Your task to perform on an android device: allow cookies in the chrome app Image 0: 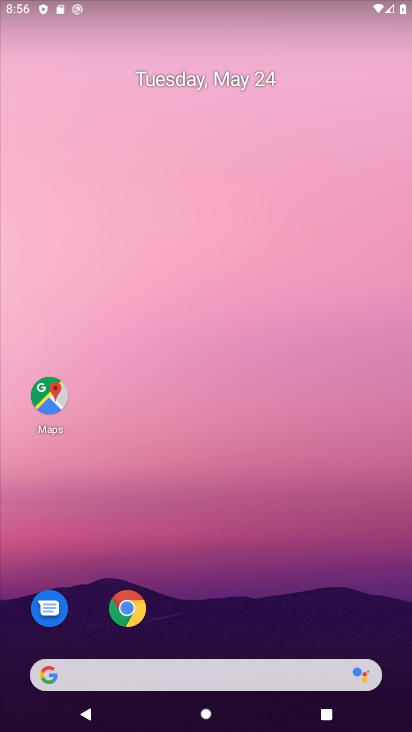
Step 0: click (133, 615)
Your task to perform on an android device: allow cookies in the chrome app Image 1: 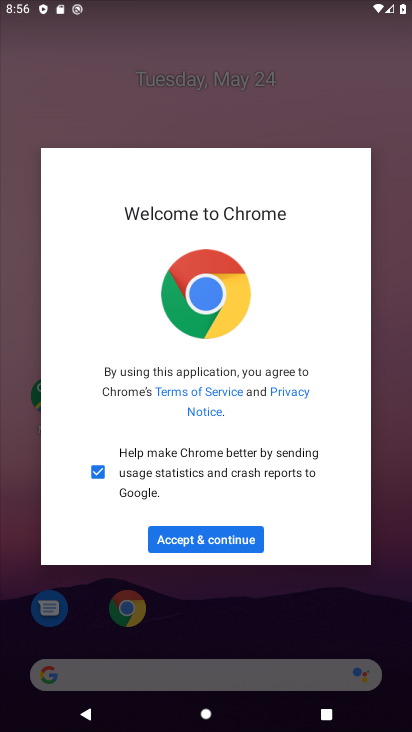
Step 1: click (227, 537)
Your task to perform on an android device: allow cookies in the chrome app Image 2: 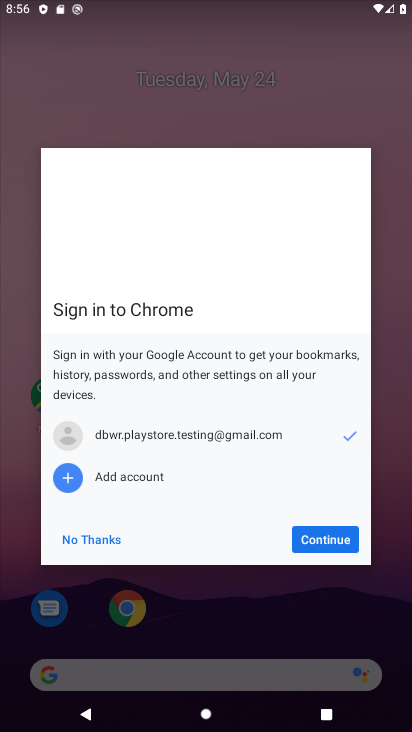
Step 2: click (322, 537)
Your task to perform on an android device: allow cookies in the chrome app Image 3: 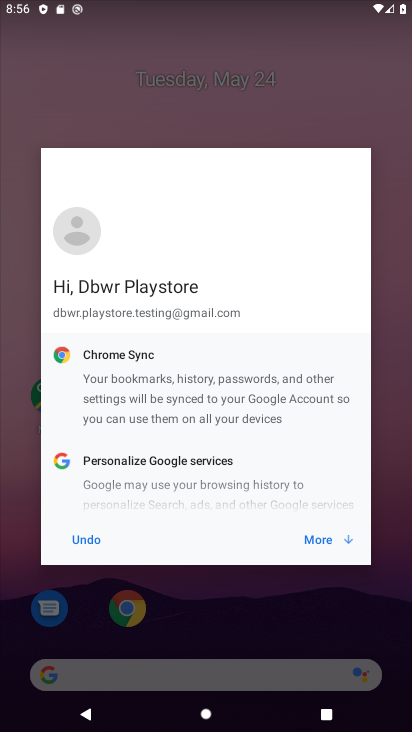
Step 3: click (330, 537)
Your task to perform on an android device: allow cookies in the chrome app Image 4: 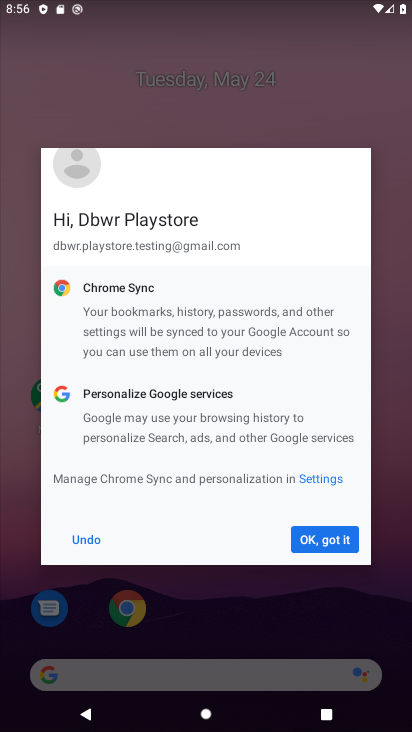
Step 4: click (327, 540)
Your task to perform on an android device: allow cookies in the chrome app Image 5: 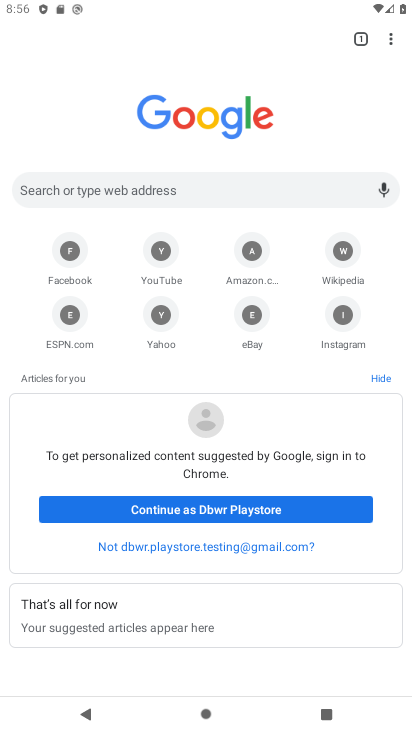
Step 5: click (390, 34)
Your task to perform on an android device: allow cookies in the chrome app Image 6: 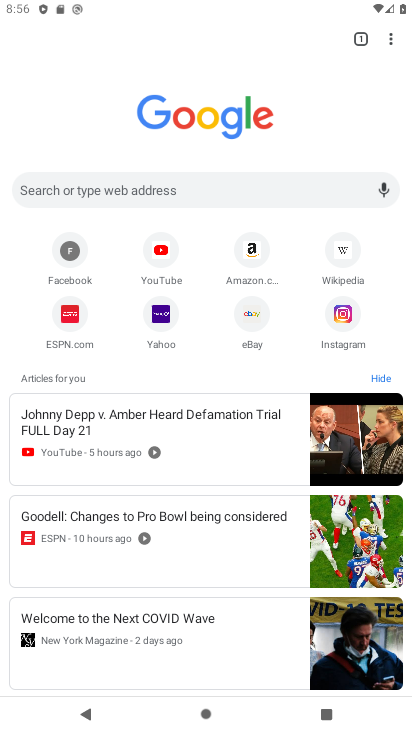
Step 6: click (396, 38)
Your task to perform on an android device: allow cookies in the chrome app Image 7: 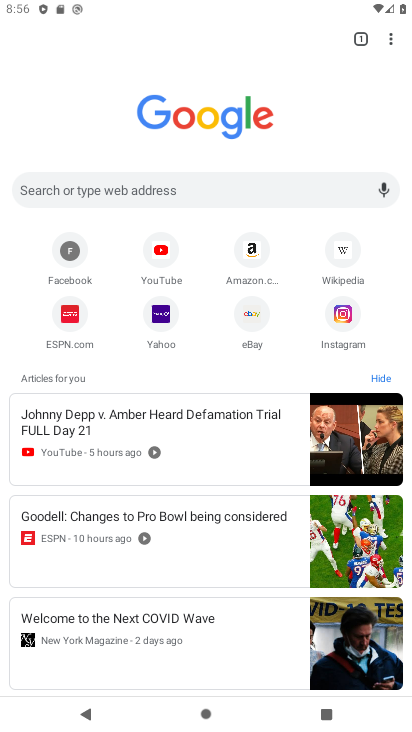
Step 7: click (386, 31)
Your task to perform on an android device: allow cookies in the chrome app Image 8: 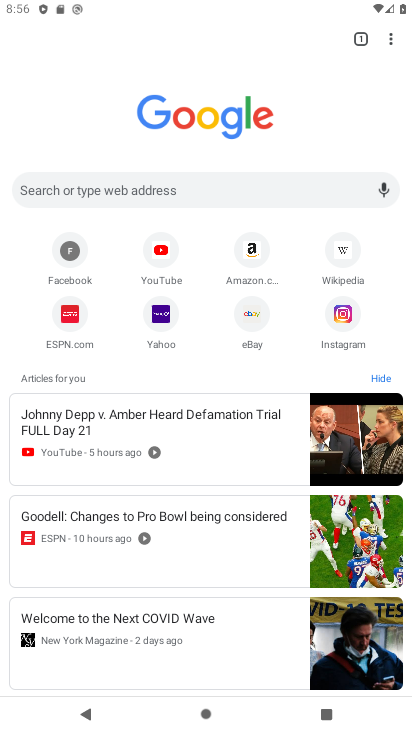
Step 8: click (392, 31)
Your task to perform on an android device: allow cookies in the chrome app Image 9: 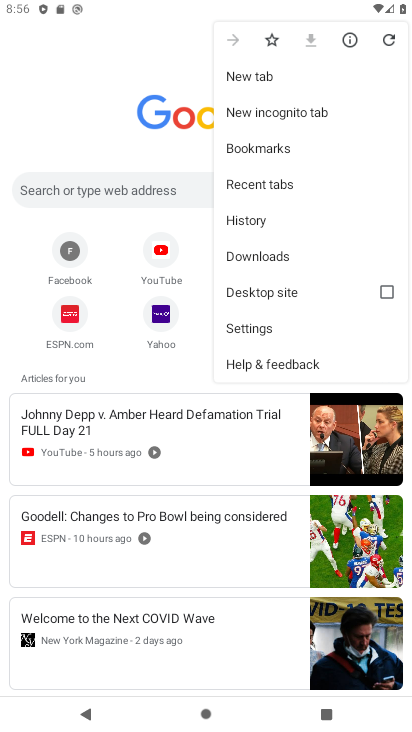
Step 9: click (268, 326)
Your task to perform on an android device: allow cookies in the chrome app Image 10: 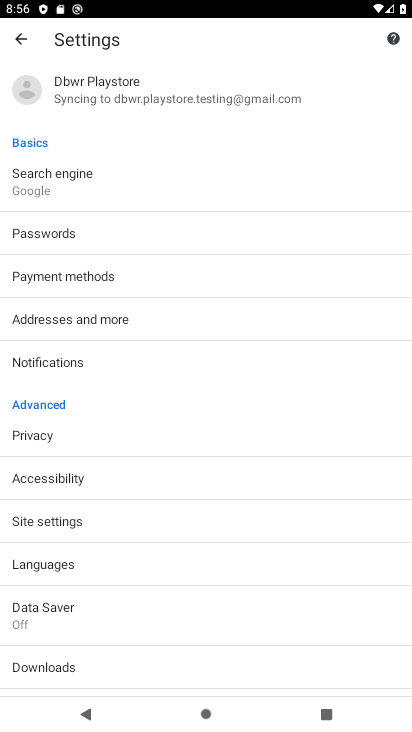
Step 10: click (125, 525)
Your task to perform on an android device: allow cookies in the chrome app Image 11: 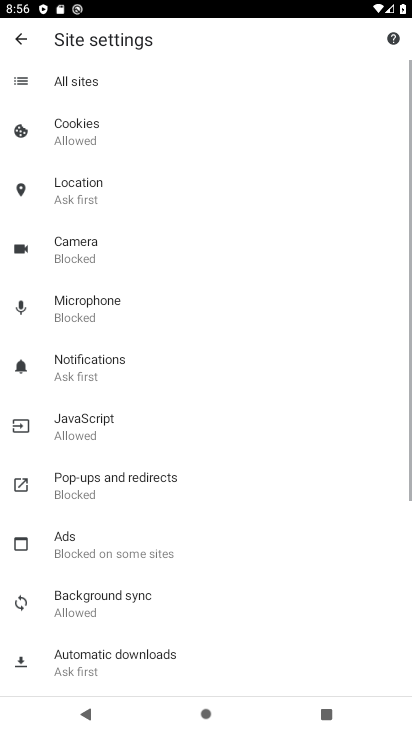
Step 11: click (169, 113)
Your task to perform on an android device: allow cookies in the chrome app Image 12: 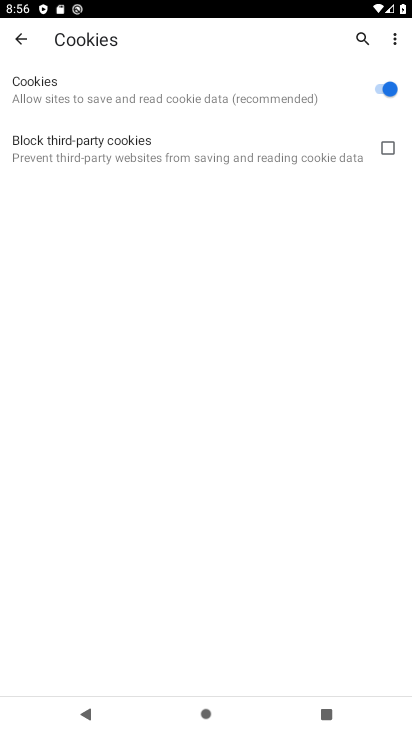
Step 12: task complete